Your task to perform on an android device: turn on sleep mode Image 0: 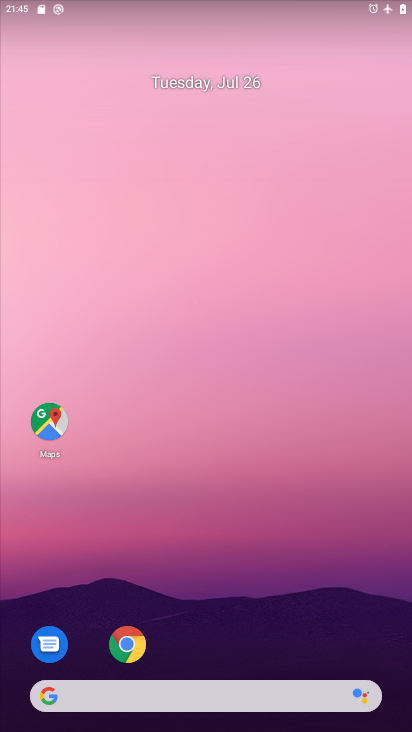
Step 0: drag from (223, 628) to (231, 329)
Your task to perform on an android device: turn on sleep mode Image 1: 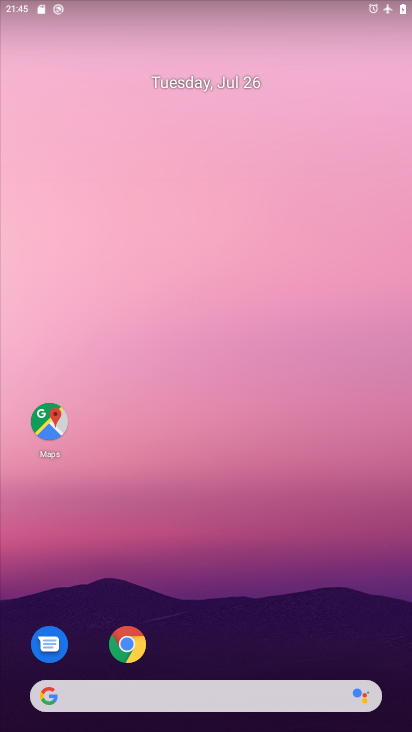
Step 1: drag from (201, 680) to (301, 166)
Your task to perform on an android device: turn on sleep mode Image 2: 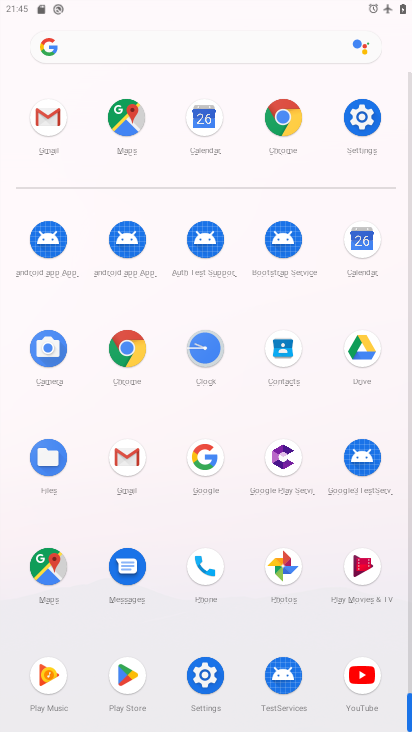
Step 2: click (373, 118)
Your task to perform on an android device: turn on sleep mode Image 3: 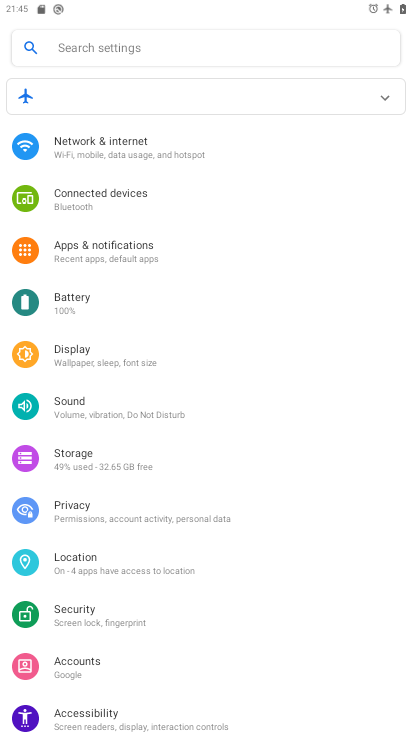
Step 3: task complete